Your task to perform on an android device: toggle javascript in the chrome app Image 0: 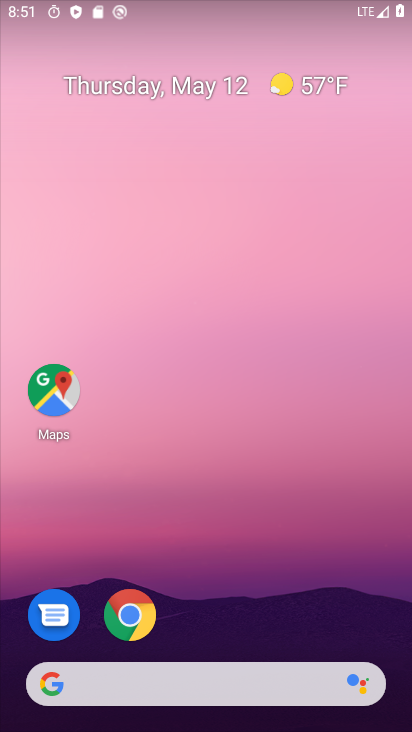
Step 0: drag from (312, 593) to (262, 2)
Your task to perform on an android device: toggle javascript in the chrome app Image 1: 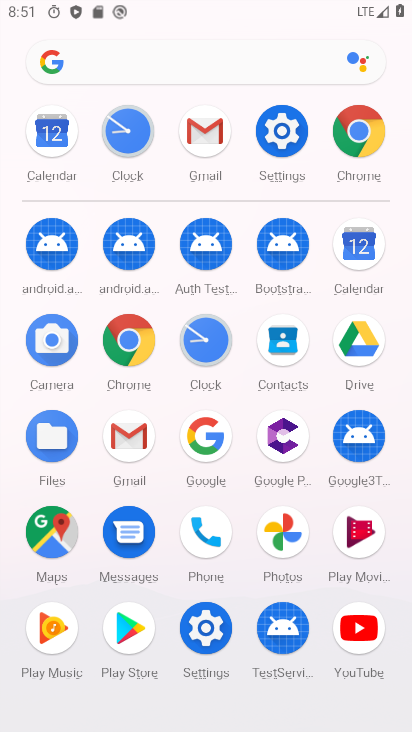
Step 1: drag from (15, 572) to (8, 268)
Your task to perform on an android device: toggle javascript in the chrome app Image 2: 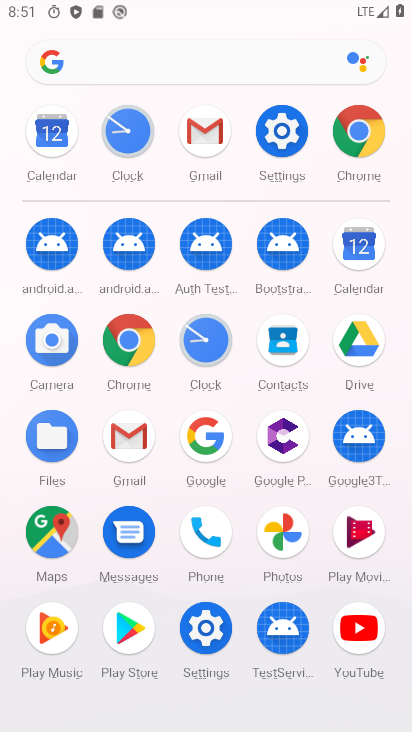
Step 2: click (132, 338)
Your task to perform on an android device: toggle javascript in the chrome app Image 3: 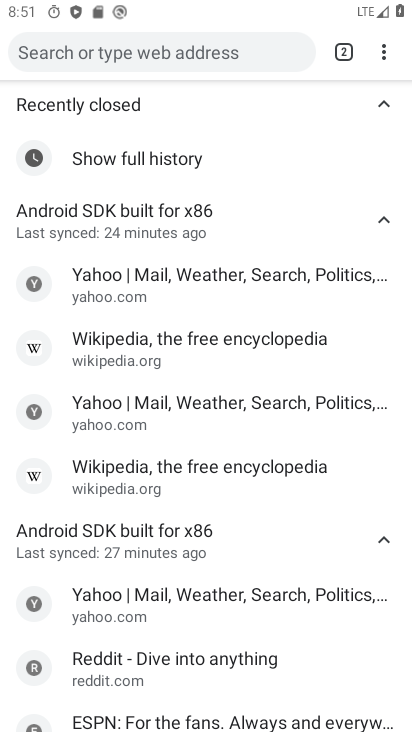
Step 3: drag from (383, 48) to (190, 441)
Your task to perform on an android device: toggle javascript in the chrome app Image 4: 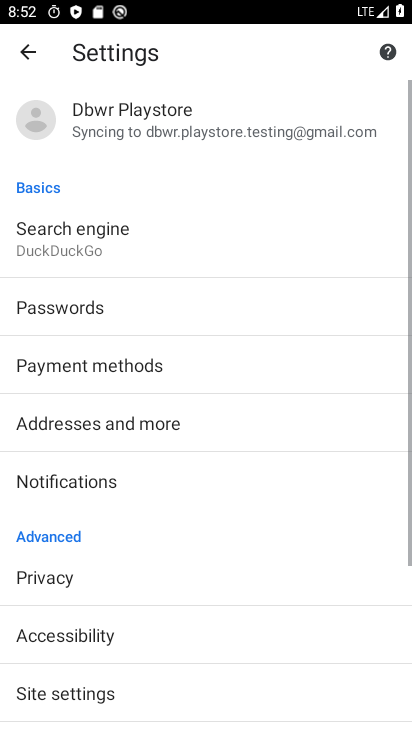
Step 4: drag from (251, 493) to (247, 106)
Your task to perform on an android device: toggle javascript in the chrome app Image 5: 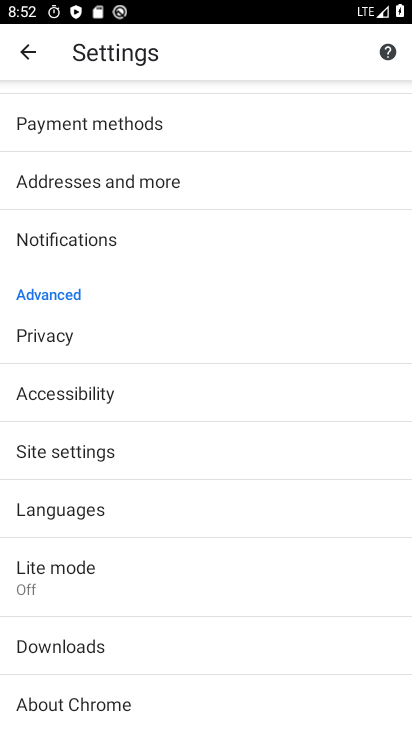
Step 5: drag from (205, 606) to (221, 211)
Your task to perform on an android device: toggle javascript in the chrome app Image 6: 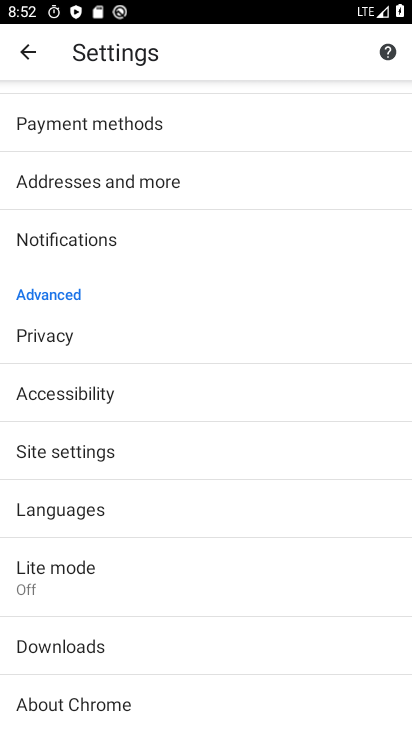
Step 6: drag from (254, 524) to (254, 181)
Your task to perform on an android device: toggle javascript in the chrome app Image 7: 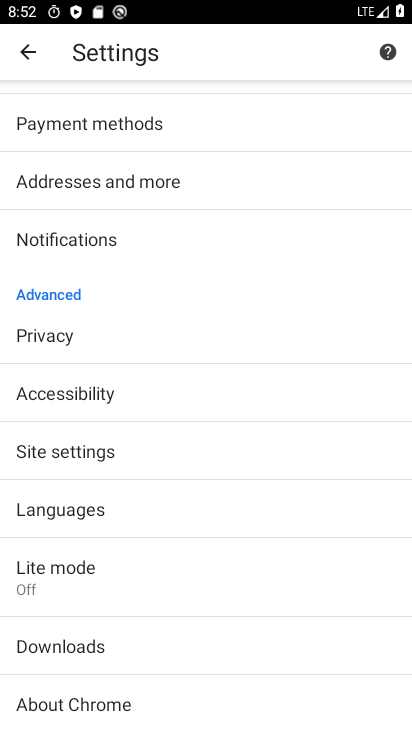
Step 7: drag from (258, 492) to (270, 209)
Your task to perform on an android device: toggle javascript in the chrome app Image 8: 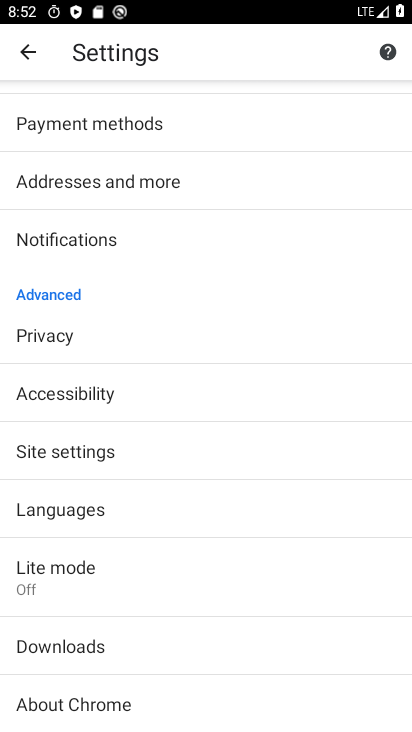
Step 8: click (136, 462)
Your task to perform on an android device: toggle javascript in the chrome app Image 9: 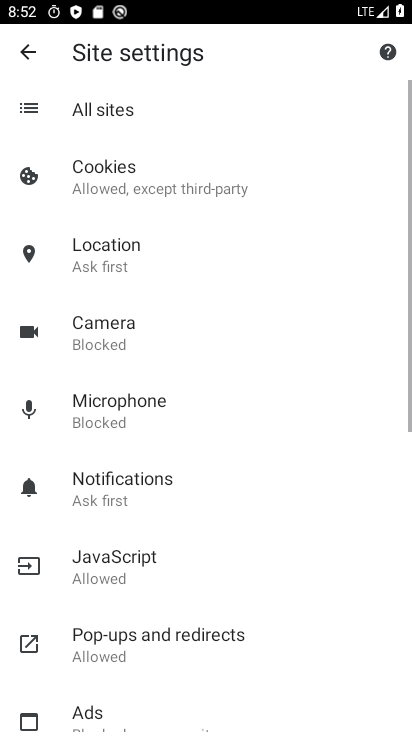
Step 9: drag from (236, 591) to (242, 290)
Your task to perform on an android device: toggle javascript in the chrome app Image 10: 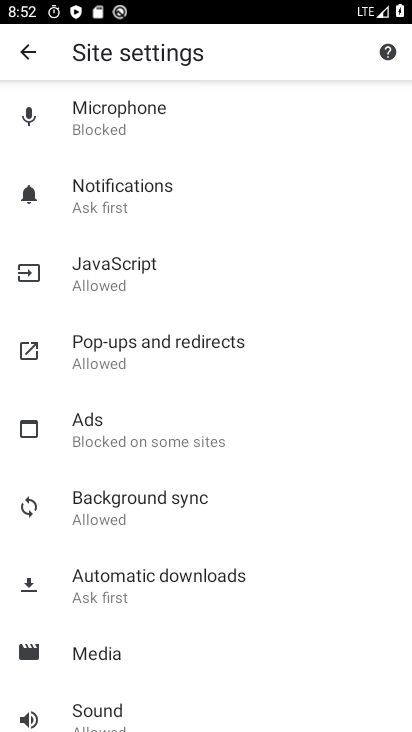
Step 10: click (155, 270)
Your task to perform on an android device: toggle javascript in the chrome app Image 11: 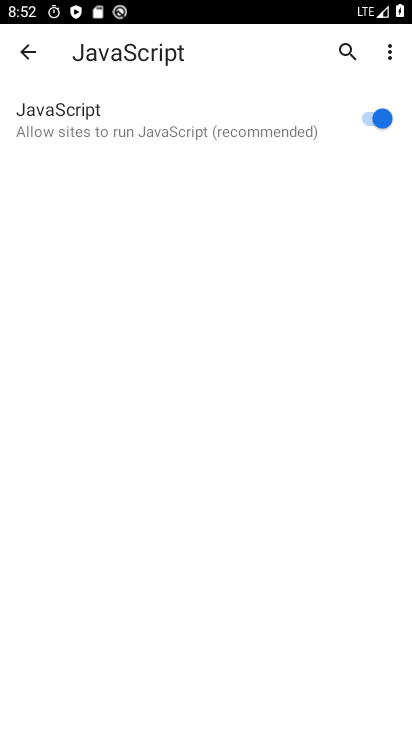
Step 11: click (361, 115)
Your task to perform on an android device: toggle javascript in the chrome app Image 12: 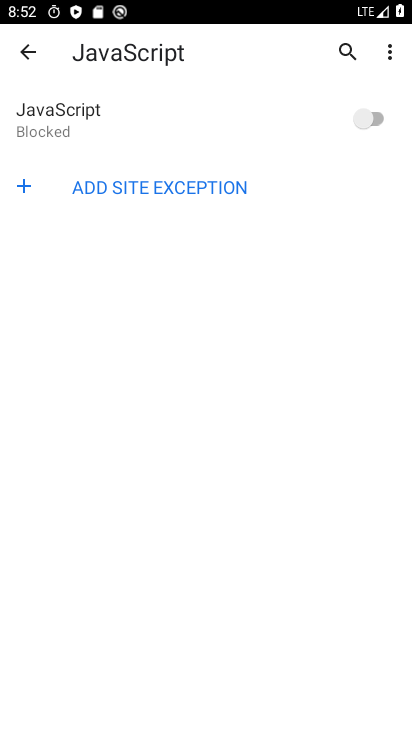
Step 12: task complete